Your task to perform on an android device: turn off improve location accuracy Image 0: 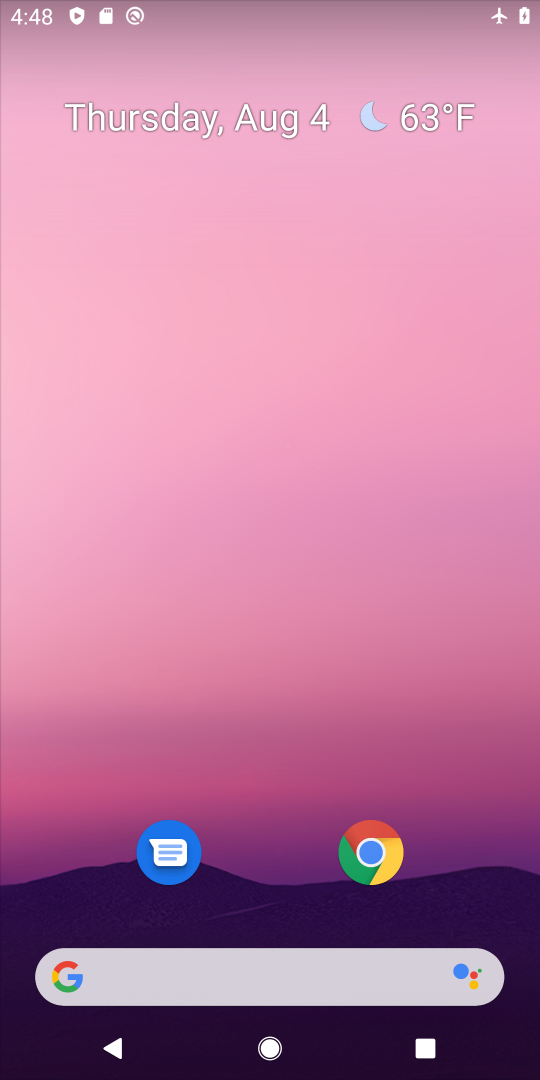
Step 0: drag from (264, 915) to (270, 139)
Your task to perform on an android device: turn off improve location accuracy Image 1: 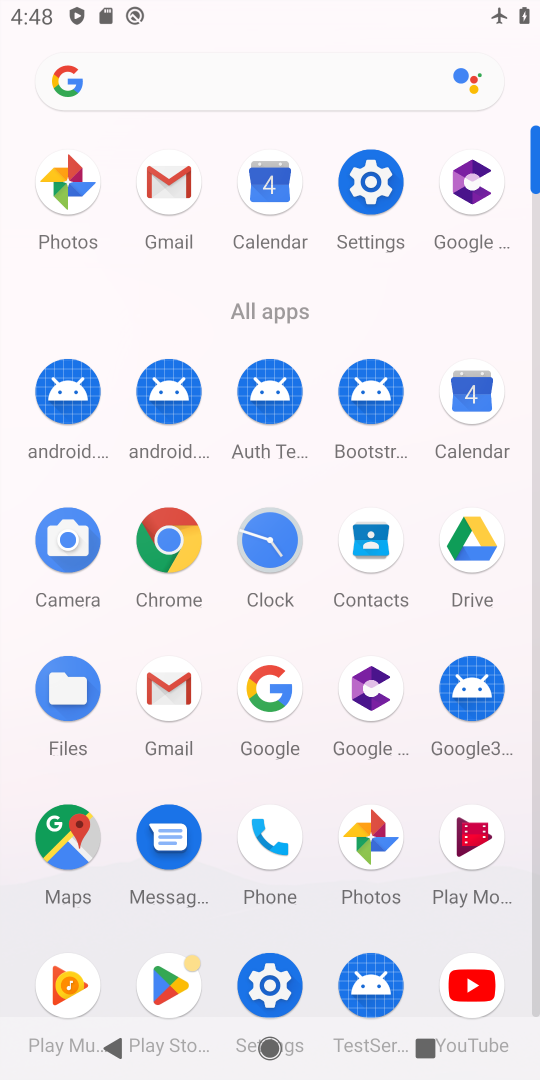
Step 1: click (262, 993)
Your task to perform on an android device: turn off improve location accuracy Image 2: 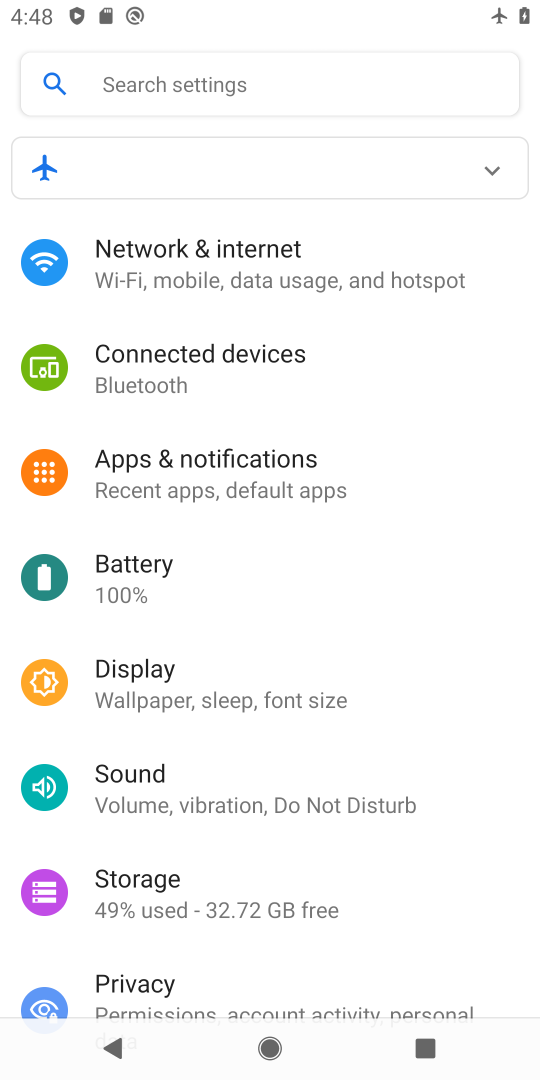
Step 2: drag from (178, 903) to (180, 316)
Your task to perform on an android device: turn off improve location accuracy Image 3: 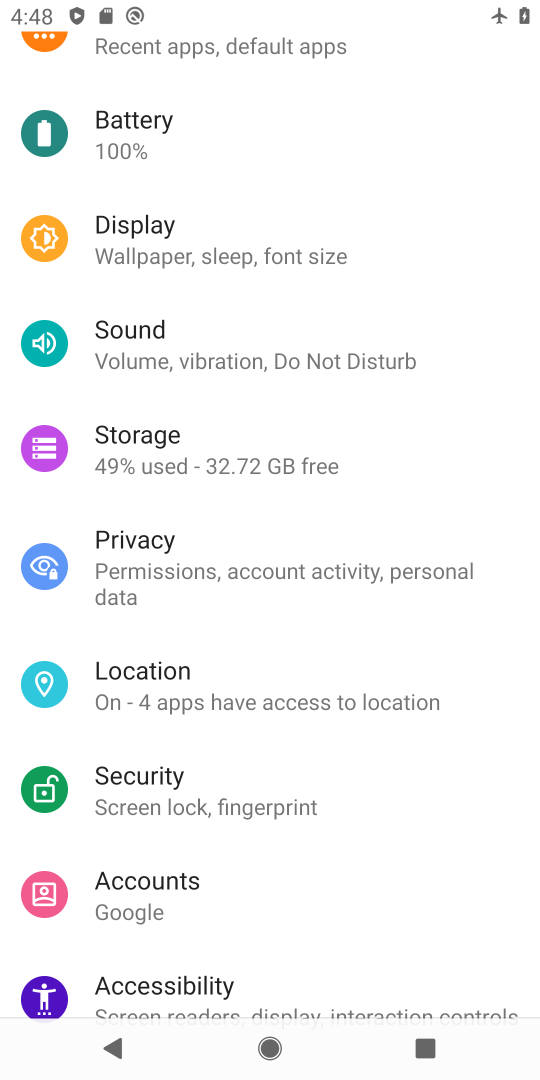
Step 3: click (144, 689)
Your task to perform on an android device: turn off improve location accuracy Image 4: 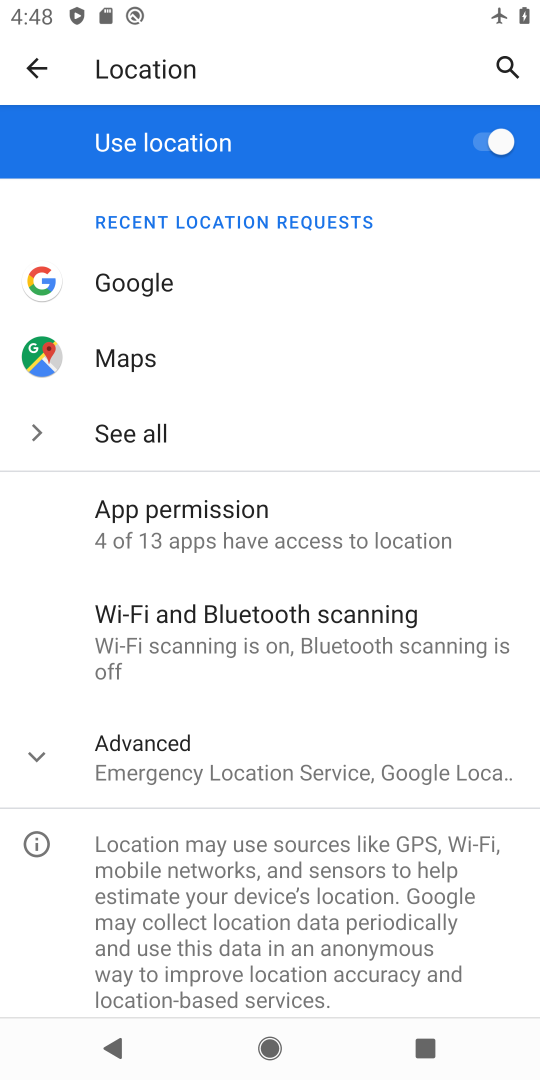
Step 4: click (134, 764)
Your task to perform on an android device: turn off improve location accuracy Image 5: 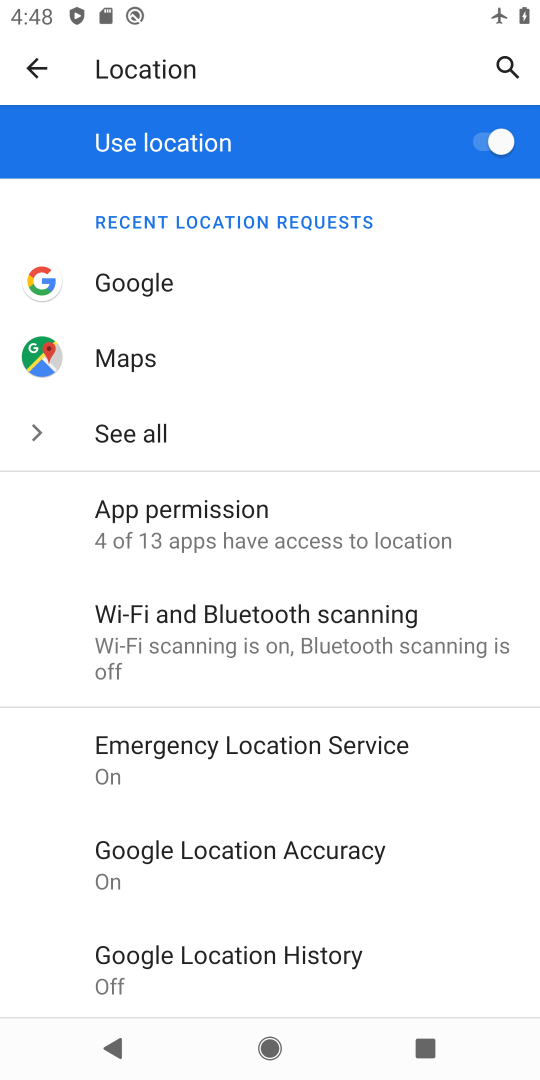
Step 5: click (172, 853)
Your task to perform on an android device: turn off improve location accuracy Image 6: 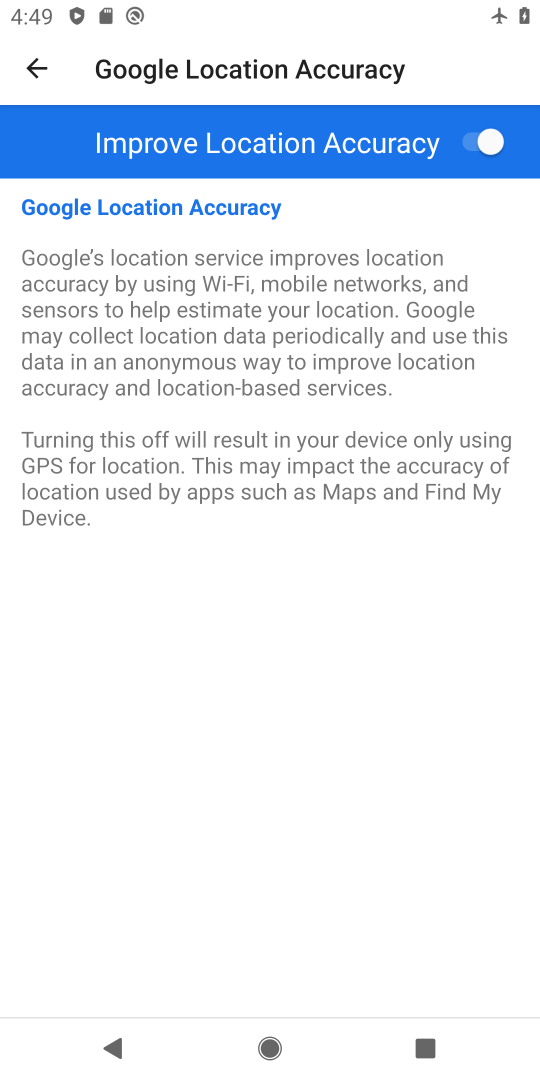
Step 6: click (486, 143)
Your task to perform on an android device: turn off improve location accuracy Image 7: 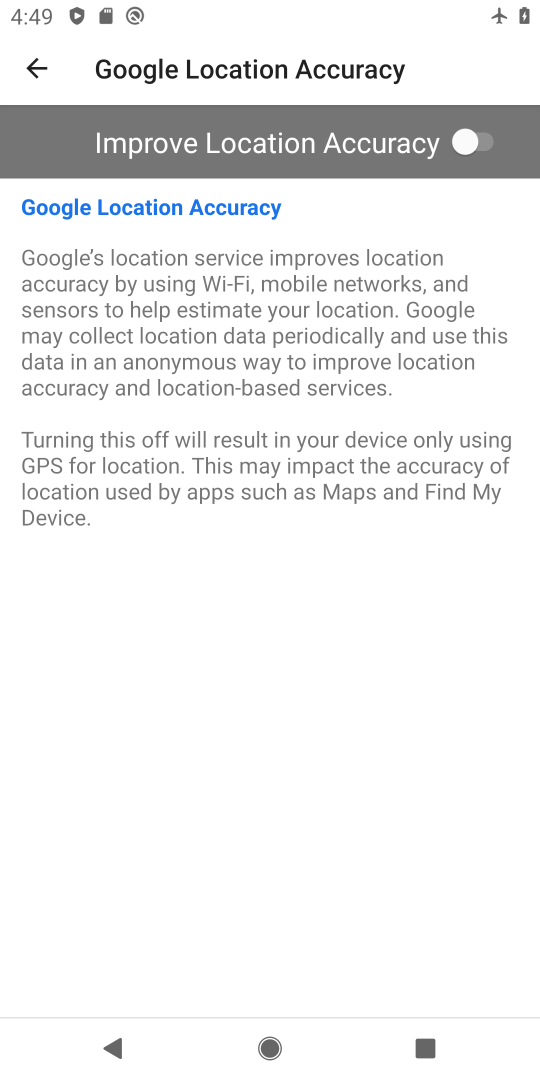
Step 7: task complete